Your task to perform on an android device: turn on improve location accuracy Image 0: 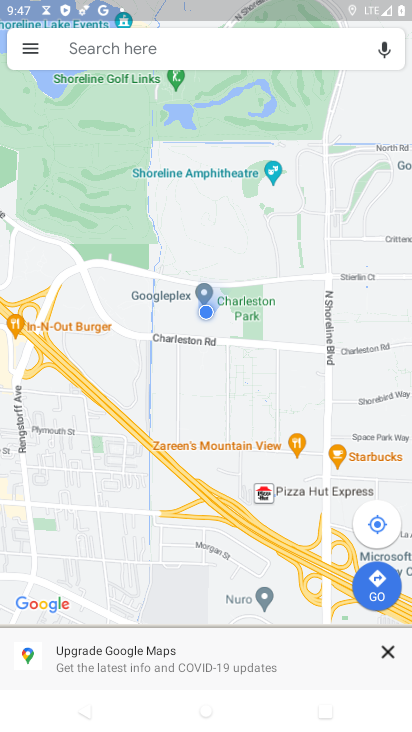
Step 0: press home button
Your task to perform on an android device: turn on improve location accuracy Image 1: 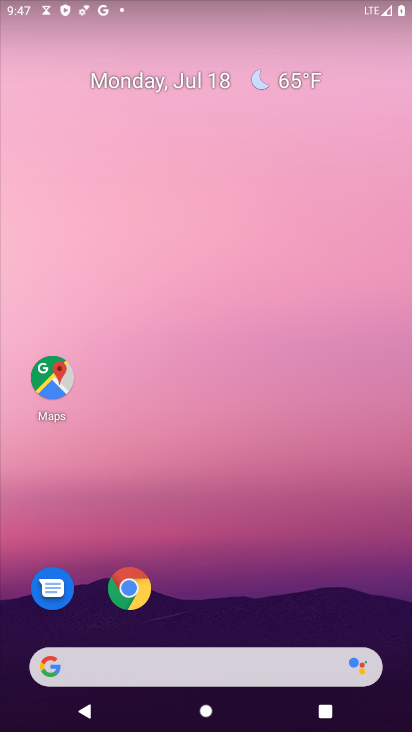
Step 1: drag from (226, 586) to (262, 90)
Your task to perform on an android device: turn on improve location accuracy Image 2: 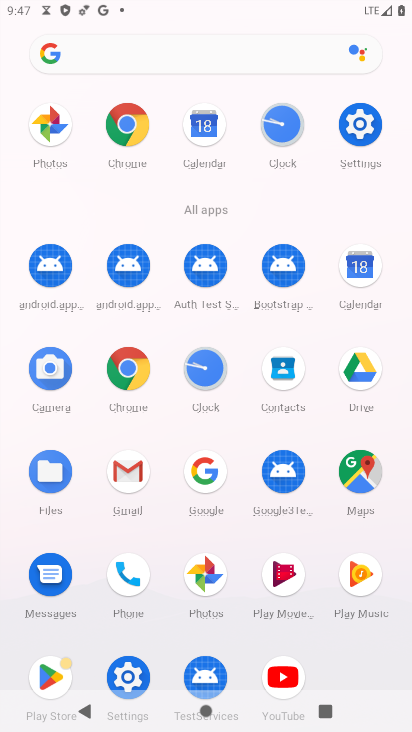
Step 2: click (362, 122)
Your task to perform on an android device: turn on improve location accuracy Image 3: 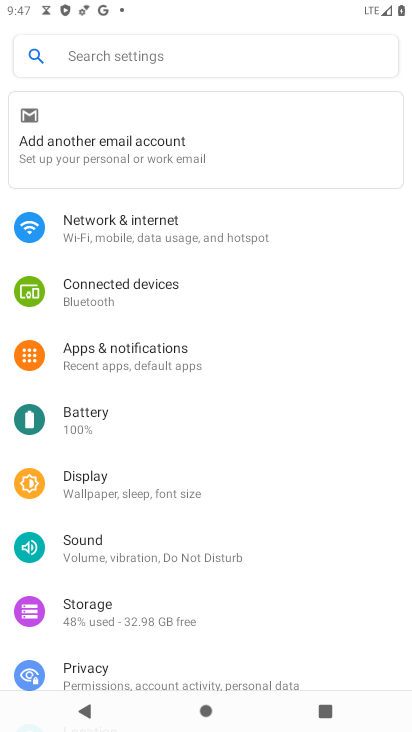
Step 3: drag from (149, 586) to (205, 471)
Your task to perform on an android device: turn on improve location accuracy Image 4: 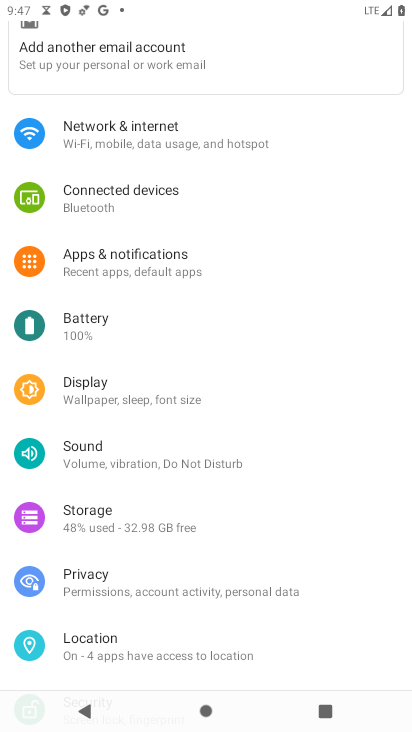
Step 4: click (105, 647)
Your task to perform on an android device: turn on improve location accuracy Image 5: 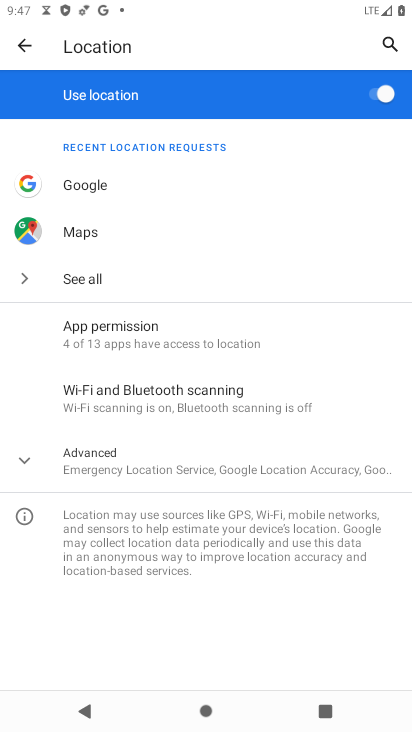
Step 5: click (141, 466)
Your task to perform on an android device: turn on improve location accuracy Image 6: 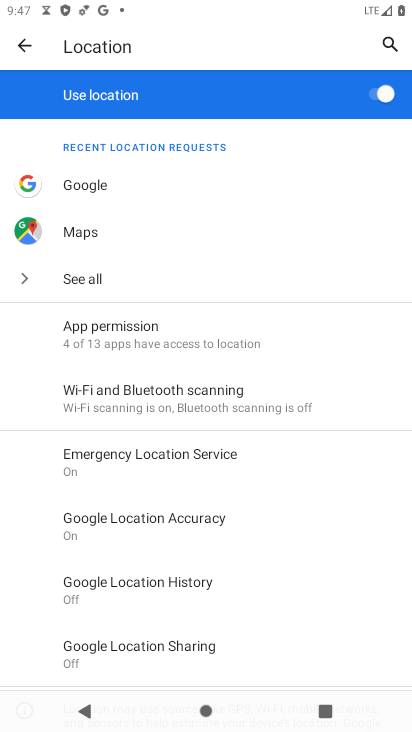
Step 6: click (186, 516)
Your task to perform on an android device: turn on improve location accuracy Image 7: 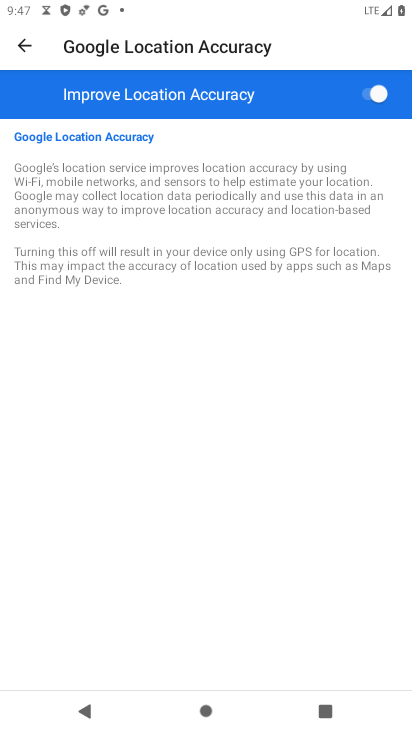
Step 7: task complete